Your task to perform on an android device: Open ESPN.com Image 0: 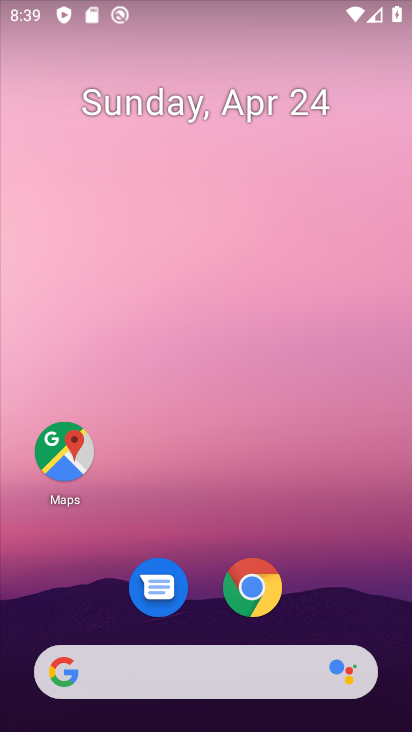
Step 0: click (238, 582)
Your task to perform on an android device: Open ESPN.com Image 1: 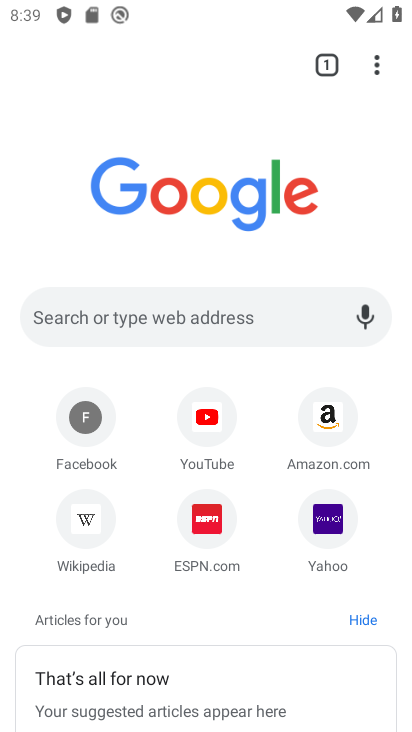
Step 1: click (199, 522)
Your task to perform on an android device: Open ESPN.com Image 2: 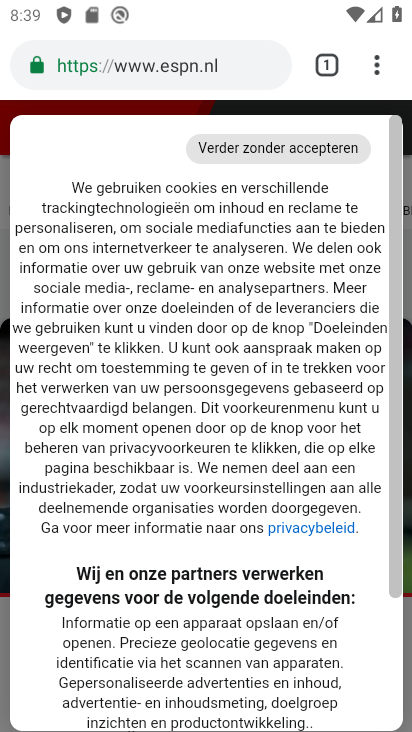
Step 2: task complete